Your task to perform on an android device: Go to notification settings Image 0: 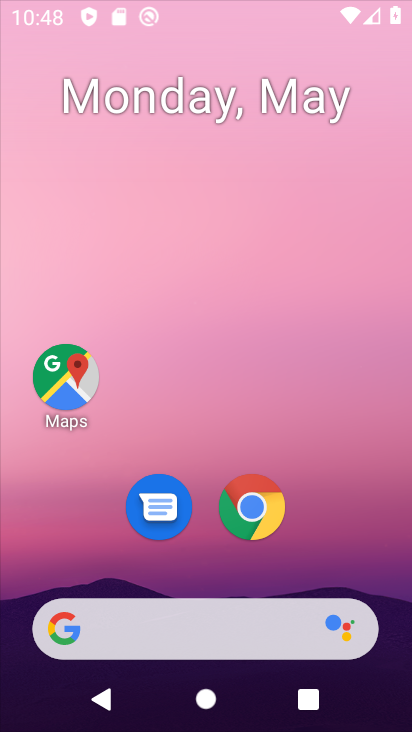
Step 0: drag from (328, 545) to (325, 88)
Your task to perform on an android device: Go to notification settings Image 1: 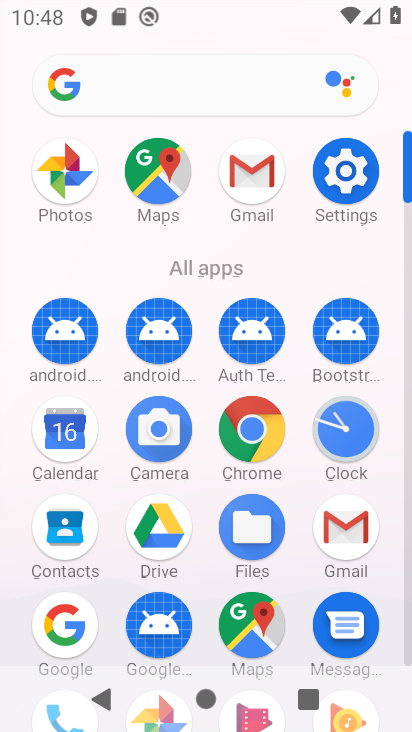
Step 1: click (353, 176)
Your task to perform on an android device: Go to notification settings Image 2: 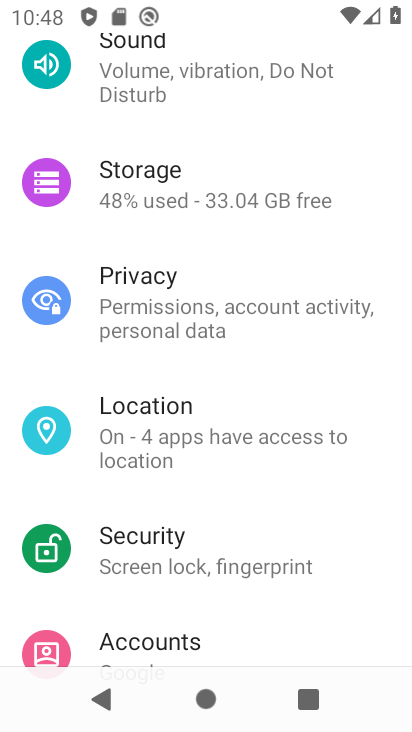
Step 2: drag from (267, 156) to (312, 635)
Your task to perform on an android device: Go to notification settings Image 3: 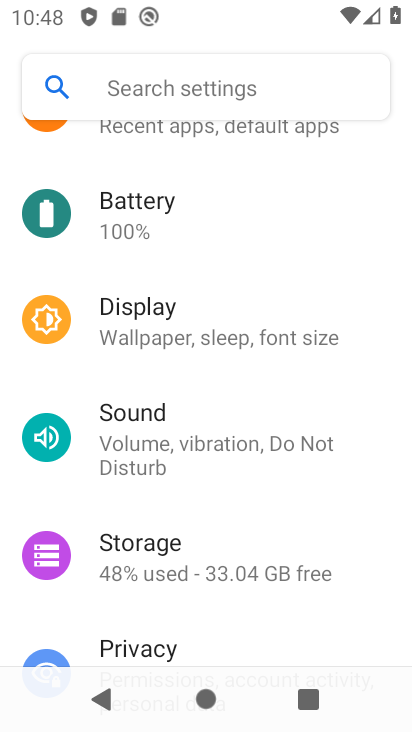
Step 3: drag from (227, 188) to (253, 626)
Your task to perform on an android device: Go to notification settings Image 4: 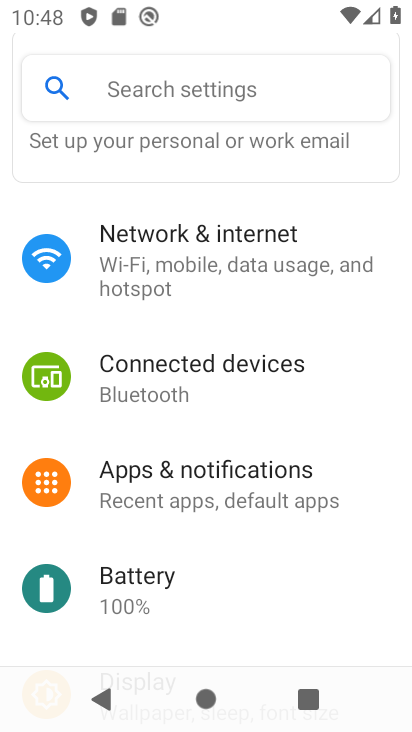
Step 4: click (222, 475)
Your task to perform on an android device: Go to notification settings Image 5: 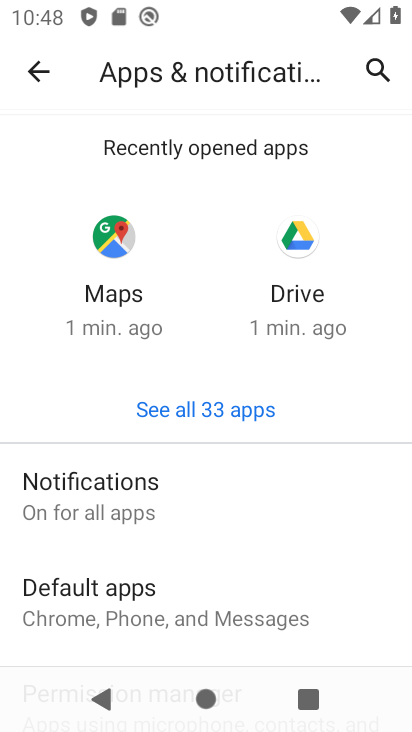
Step 5: click (206, 506)
Your task to perform on an android device: Go to notification settings Image 6: 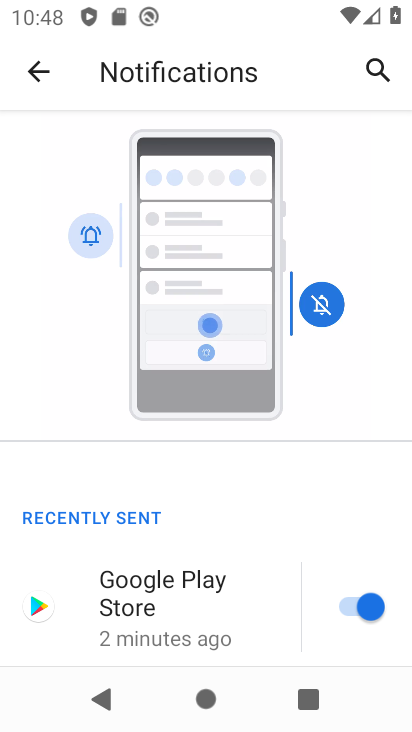
Step 6: task complete